Your task to perform on an android device: visit the assistant section in the google photos Image 0: 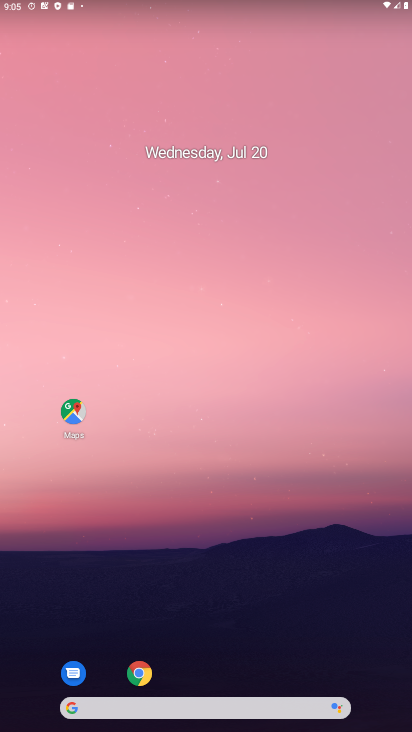
Step 0: drag from (363, 647) to (141, 34)
Your task to perform on an android device: visit the assistant section in the google photos Image 1: 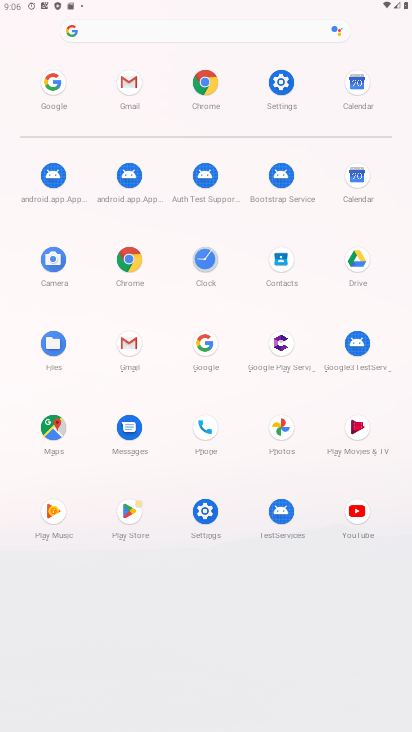
Step 1: click (277, 428)
Your task to perform on an android device: visit the assistant section in the google photos Image 2: 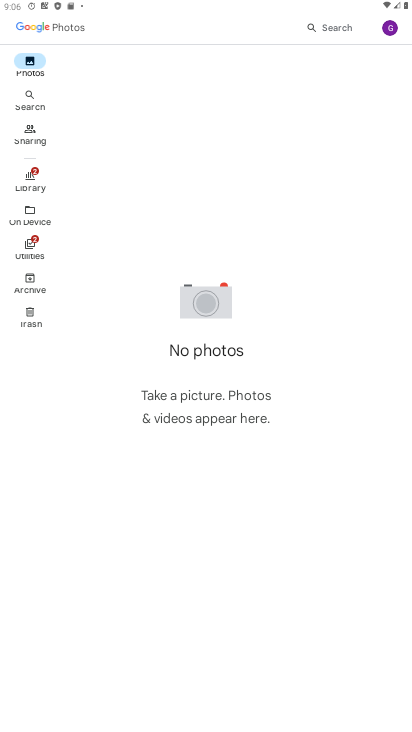
Step 2: task complete